Your task to perform on an android device: Turn off the flashlight Image 0: 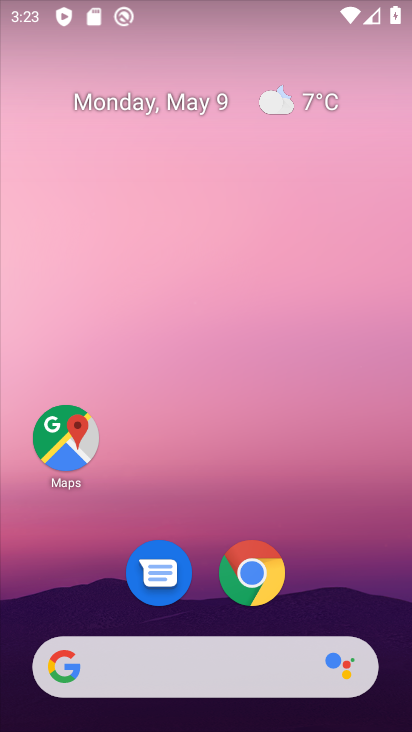
Step 0: drag from (188, 7) to (207, 509)
Your task to perform on an android device: Turn off the flashlight Image 1: 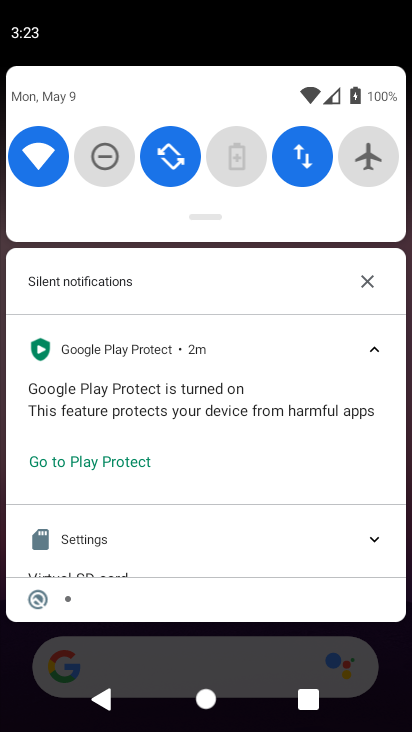
Step 1: task complete